Your task to perform on an android device: Show the shopping cart on costco.com. Search for "bose soundsport free" on costco.com, select the first entry, add it to the cart, then select checkout. Image 0: 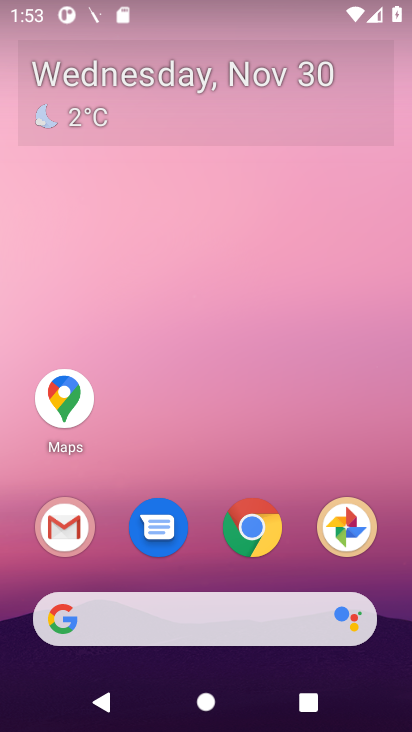
Step 0: click (245, 542)
Your task to perform on an android device: Show the shopping cart on costco.com. Search for "bose soundsport free" on costco.com, select the first entry, add it to the cart, then select checkout. Image 1: 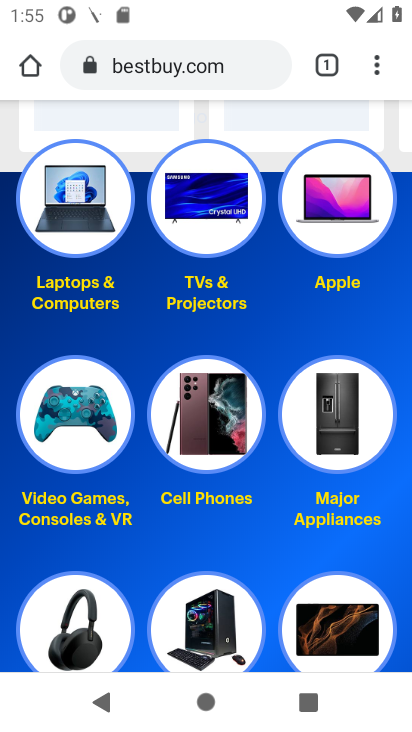
Step 1: task complete